Your task to perform on an android device: Go to Android settings Image 0: 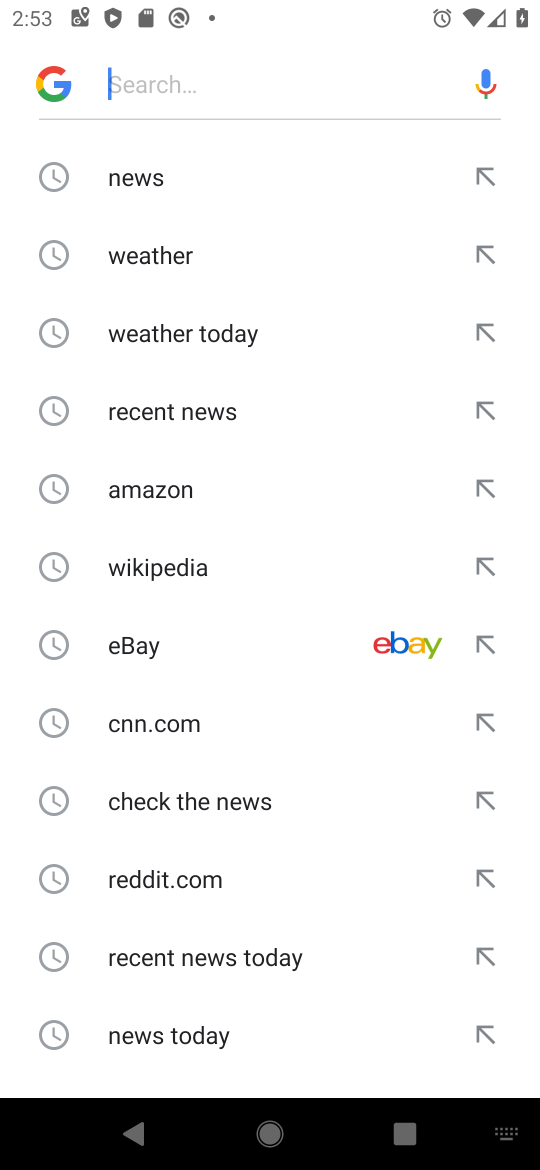
Step 0: press home button
Your task to perform on an android device: Go to Android settings Image 1: 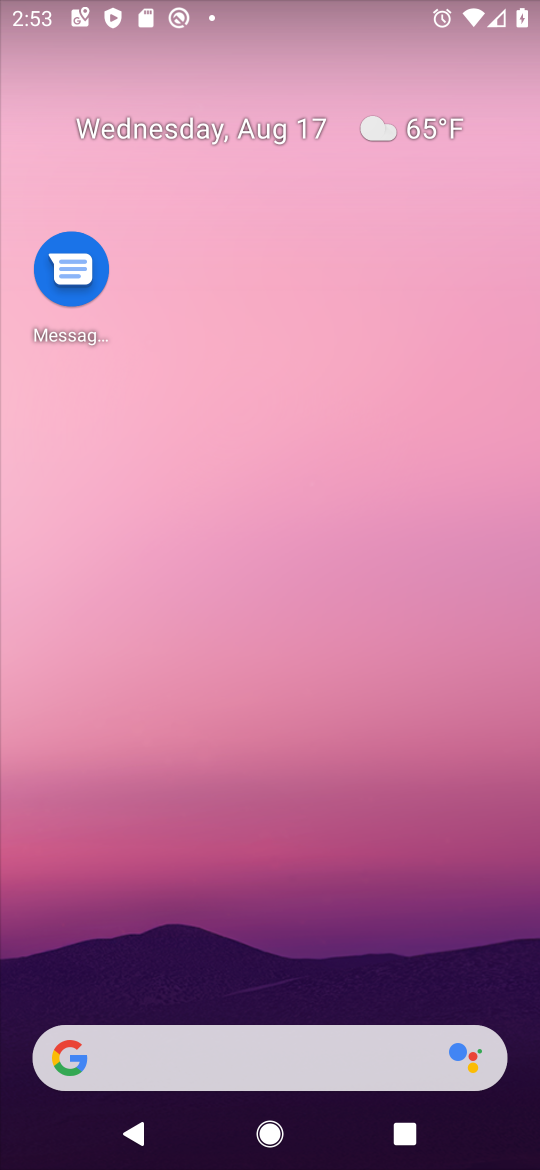
Step 1: drag from (209, 611) to (276, 82)
Your task to perform on an android device: Go to Android settings Image 2: 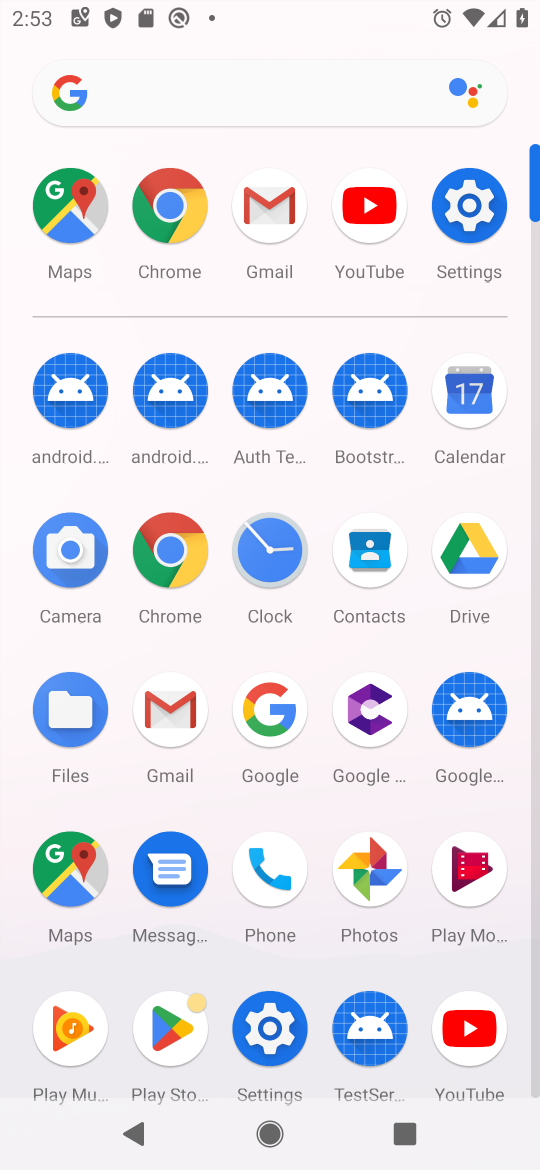
Step 2: click (478, 217)
Your task to perform on an android device: Go to Android settings Image 3: 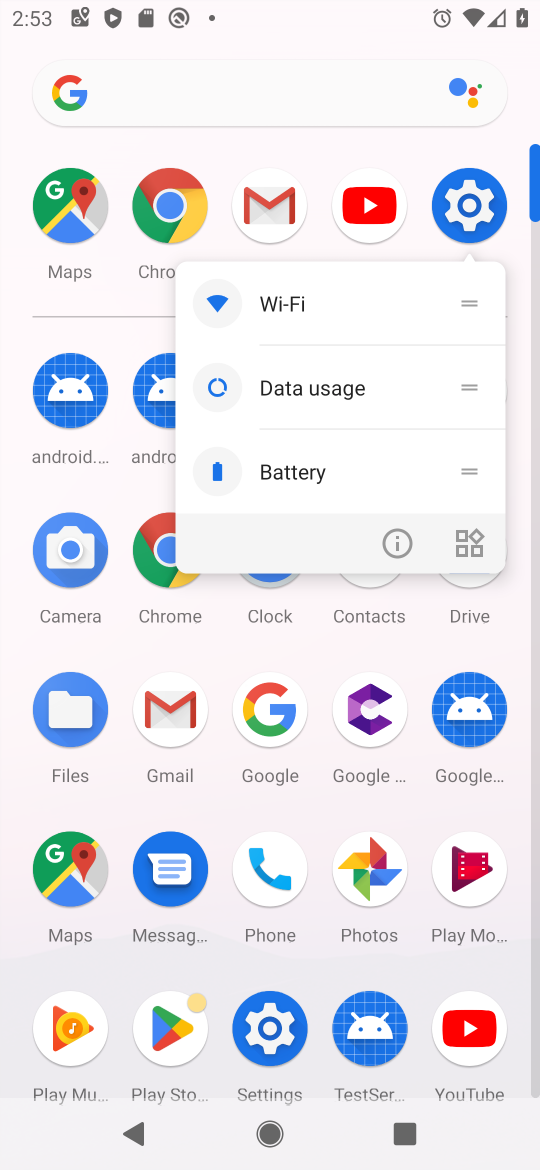
Step 3: click (468, 216)
Your task to perform on an android device: Go to Android settings Image 4: 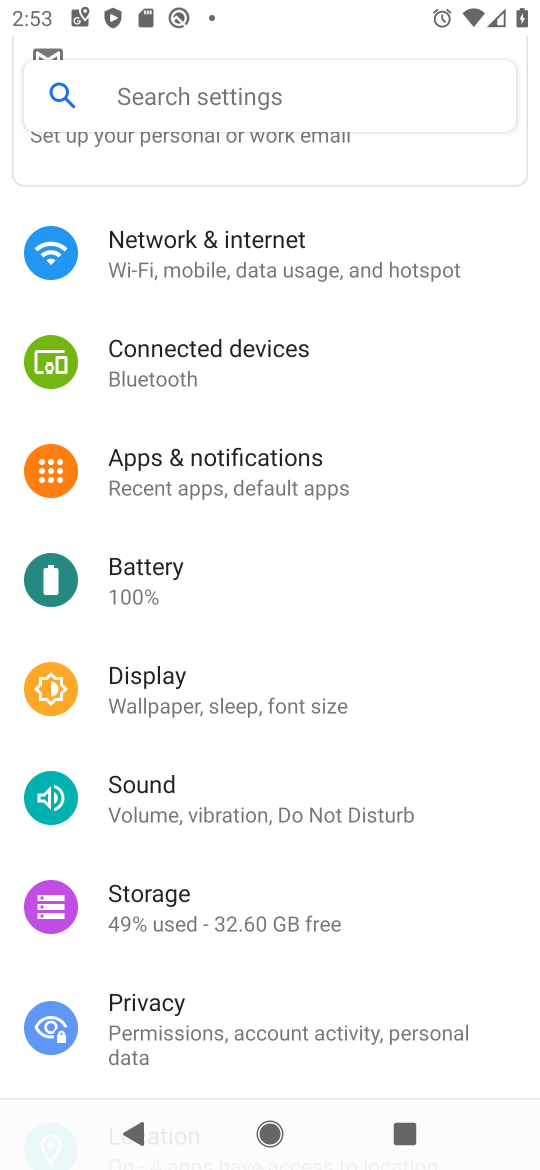
Step 4: task complete